Your task to perform on an android device: toggle pop-ups in chrome Image 0: 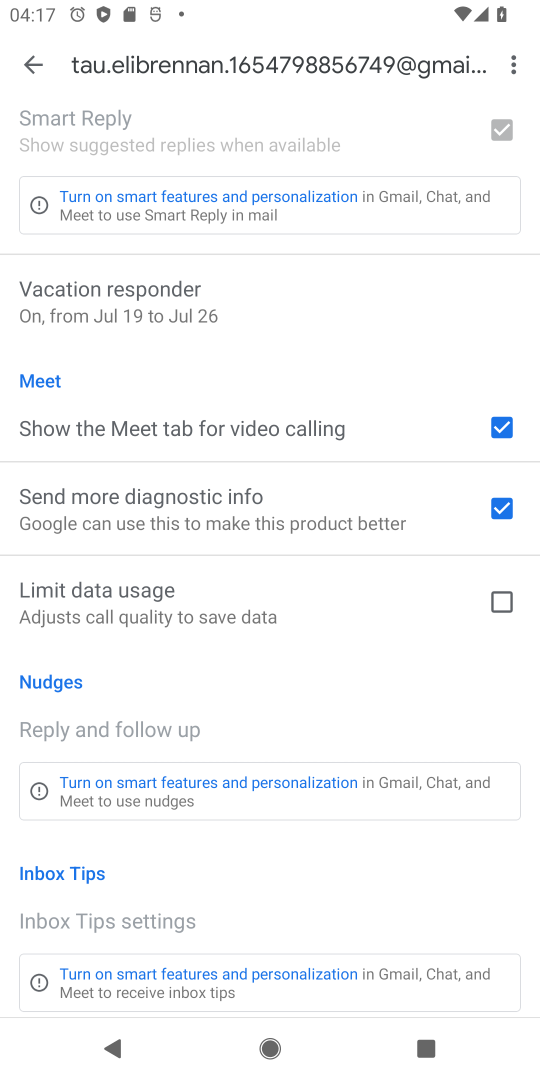
Step 0: press home button
Your task to perform on an android device: toggle pop-ups in chrome Image 1: 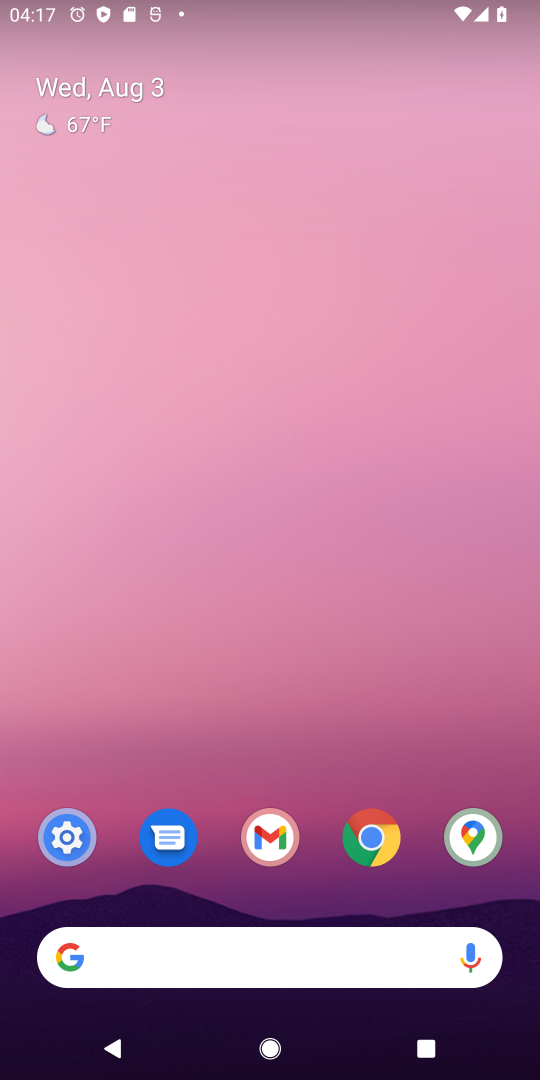
Step 1: click (373, 833)
Your task to perform on an android device: toggle pop-ups in chrome Image 2: 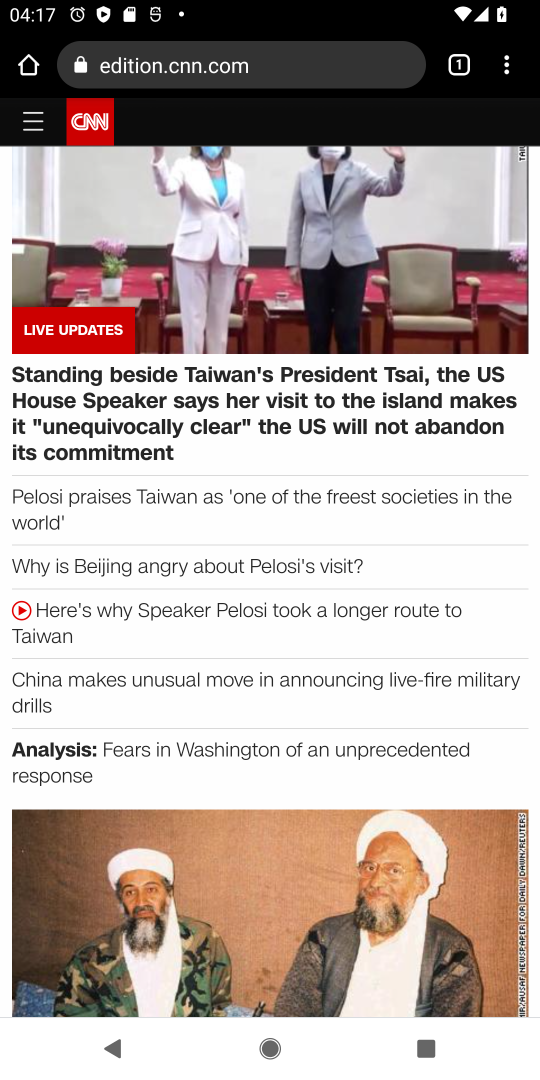
Step 2: click (504, 71)
Your task to perform on an android device: toggle pop-ups in chrome Image 3: 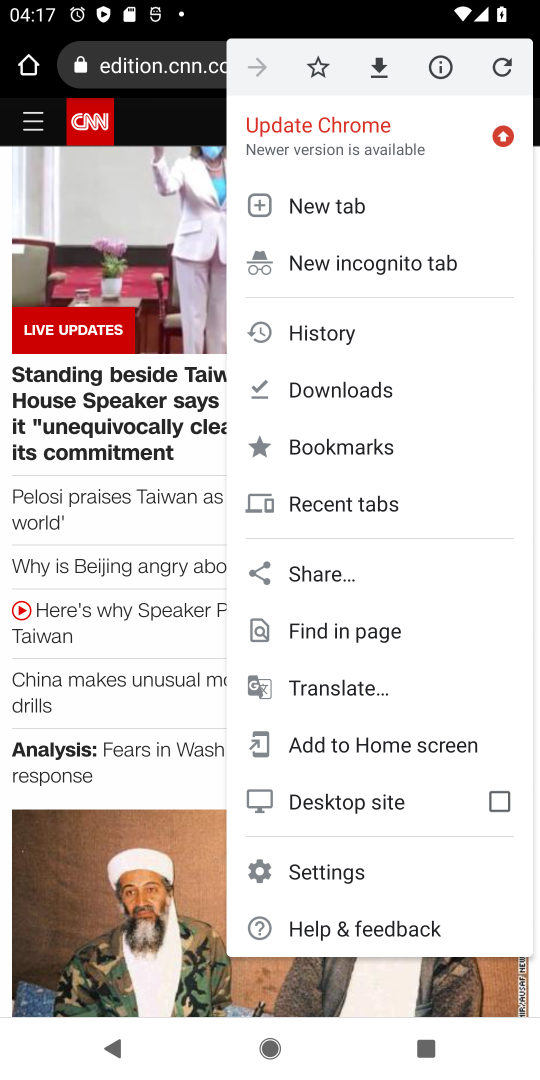
Step 3: click (316, 868)
Your task to perform on an android device: toggle pop-ups in chrome Image 4: 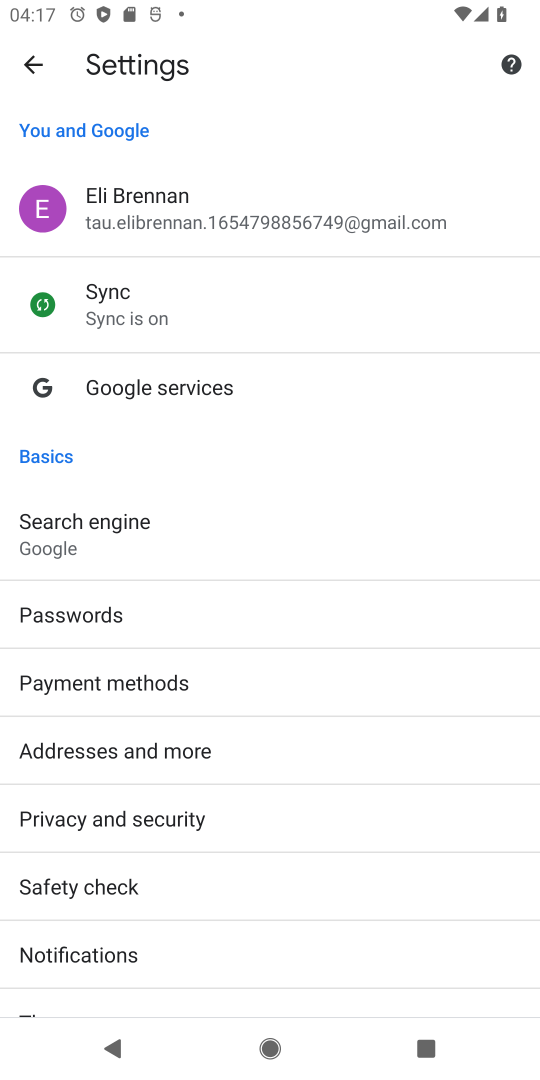
Step 4: drag from (282, 887) to (283, 509)
Your task to perform on an android device: toggle pop-ups in chrome Image 5: 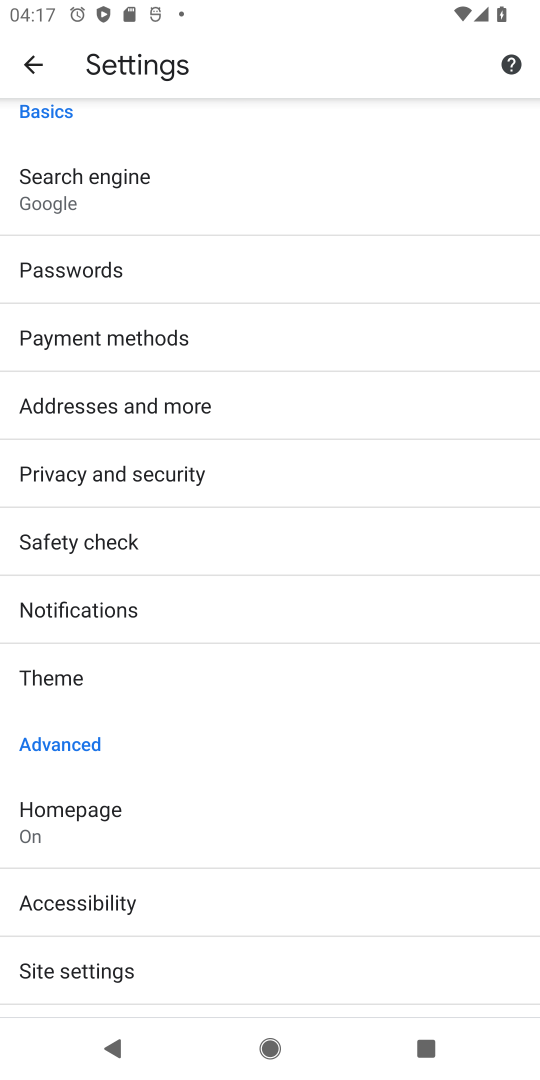
Step 5: drag from (245, 896) to (242, 412)
Your task to perform on an android device: toggle pop-ups in chrome Image 6: 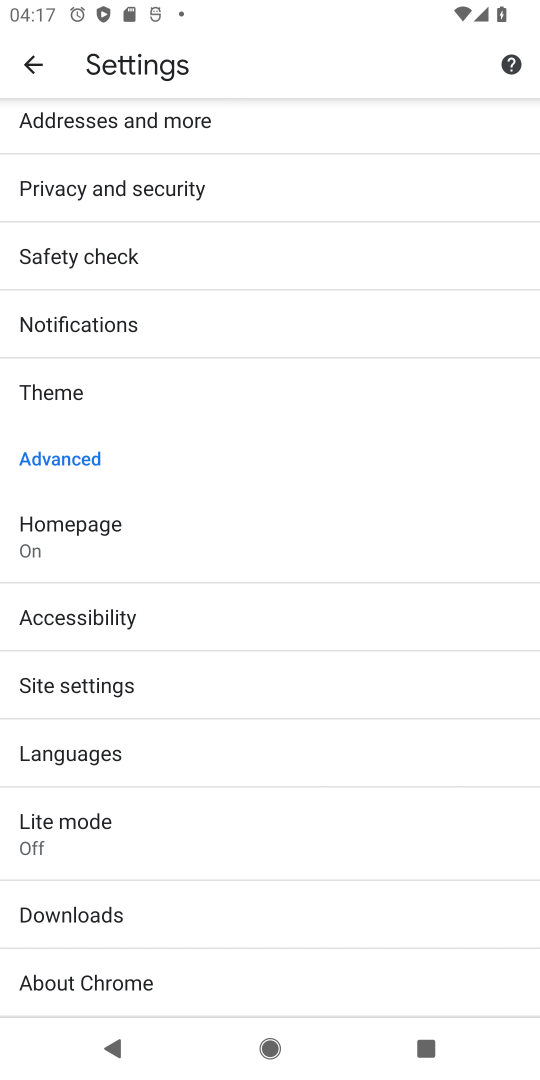
Step 6: click (99, 680)
Your task to perform on an android device: toggle pop-ups in chrome Image 7: 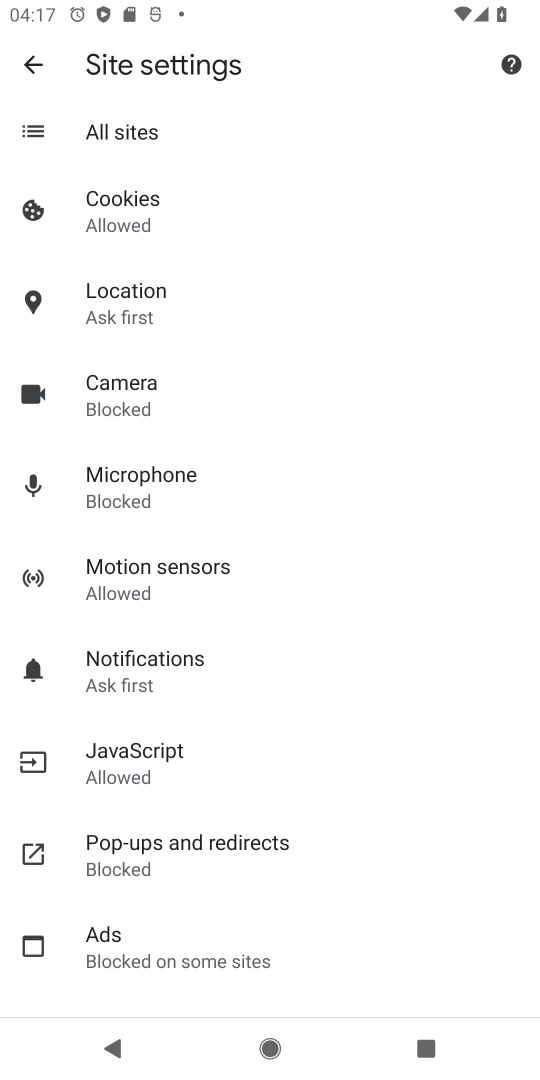
Step 7: click (141, 830)
Your task to perform on an android device: toggle pop-ups in chrome Image 8: 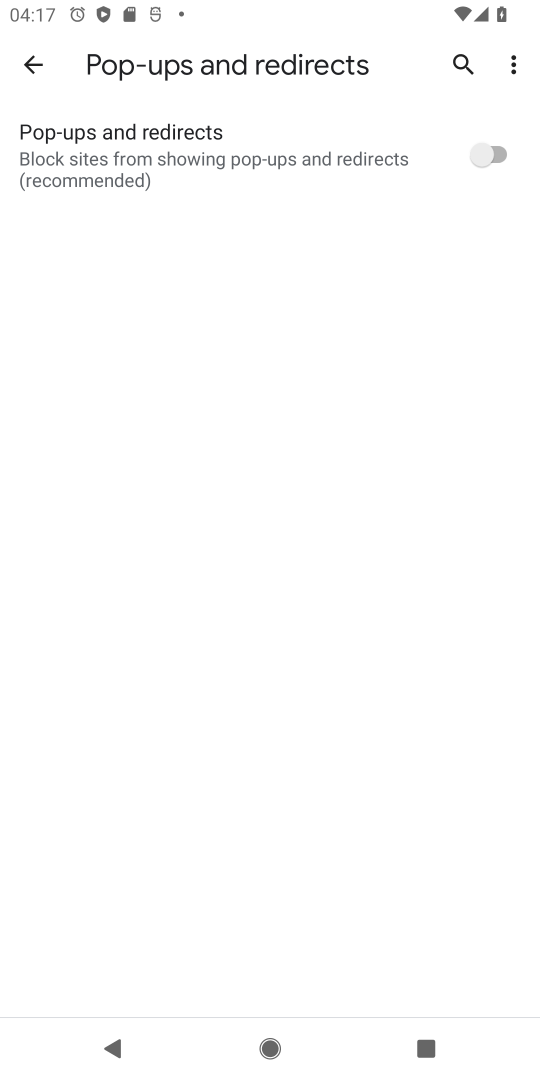
Step 8: click (496, 144)
Your task to perform on an android device: toggle pop-ups in chrome Image 9: 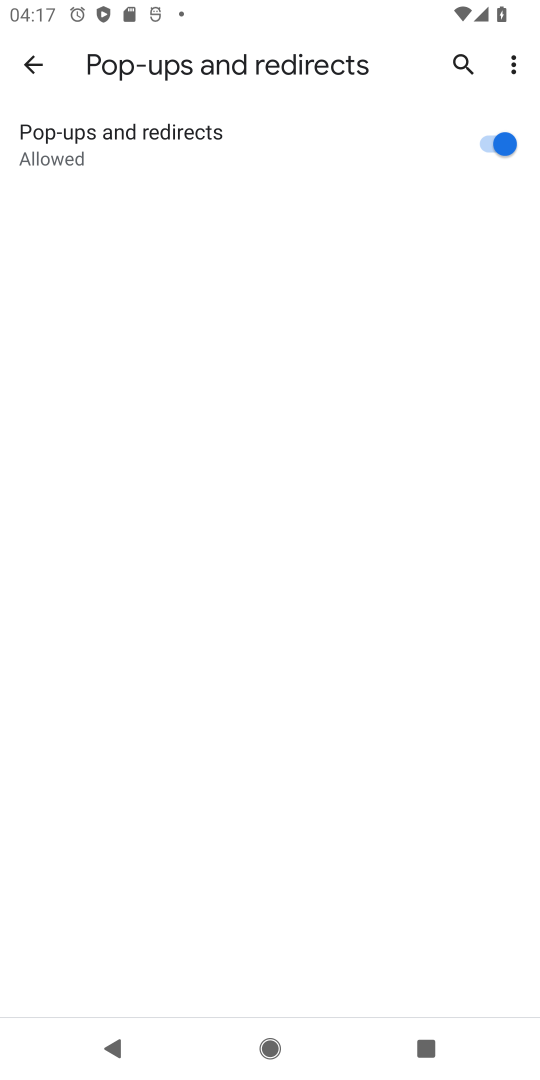
Step 9: task complete